Your task to perform on an android device: turn on the 24-hour format for clock Image 0: 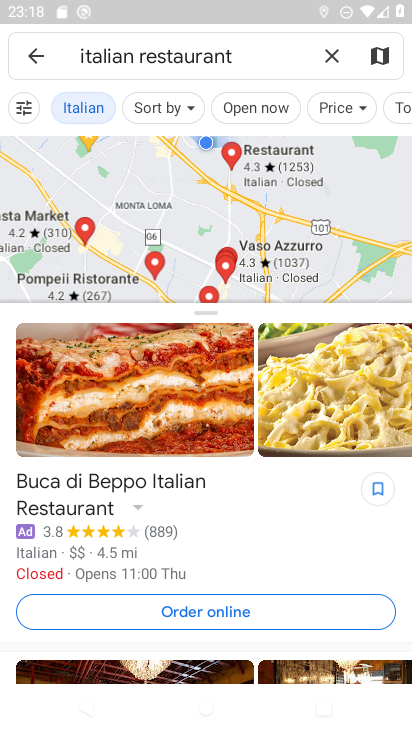
Step 0: press home button
Your task to perform on an android device: turn on the 24-hour format for clock Image 1: 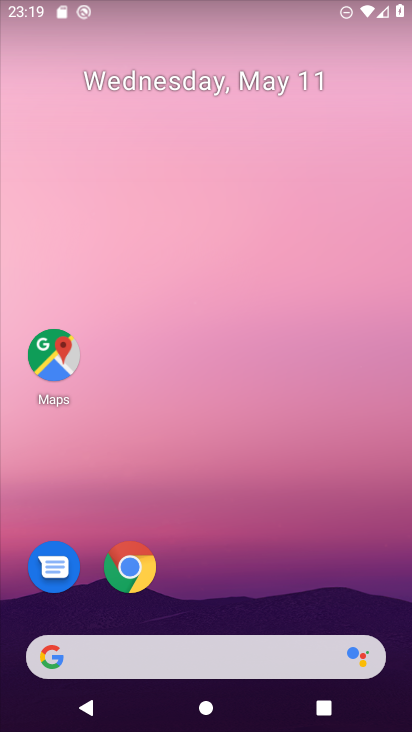
Step 1: drag from (255, 712) to (254, 22)
Your task to perform on an android device: turn on the 24-hour format for clock Image 2: 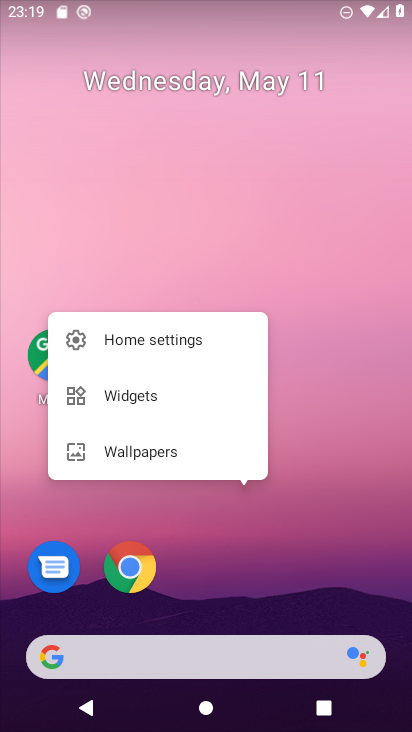
Step 2: click (238, 718)
Your task to perform on an android device: turn on the 24-hour format for clock Image 3: 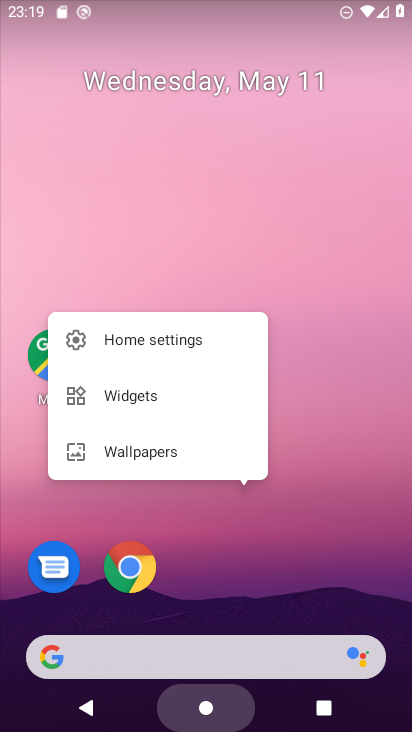
Step 3: drag from (254, 712) to (309, 97)
Your task to perform on an android device: turn on the 24-hour format for clock Image 4: 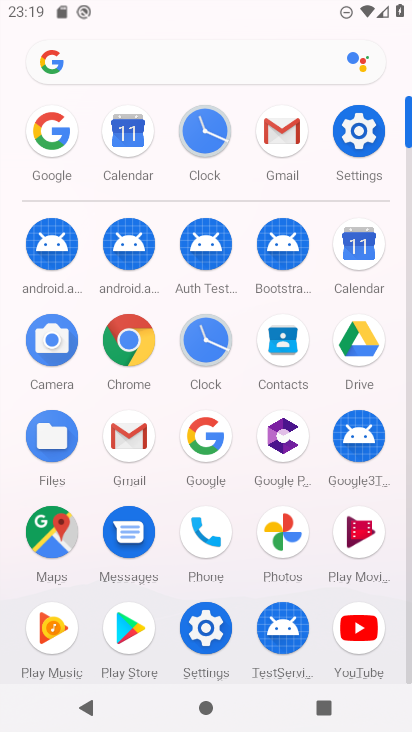
Step 4: click (205, 346)
Your task to perform on an android device: turn on the 24-hour format for clock Image 5: 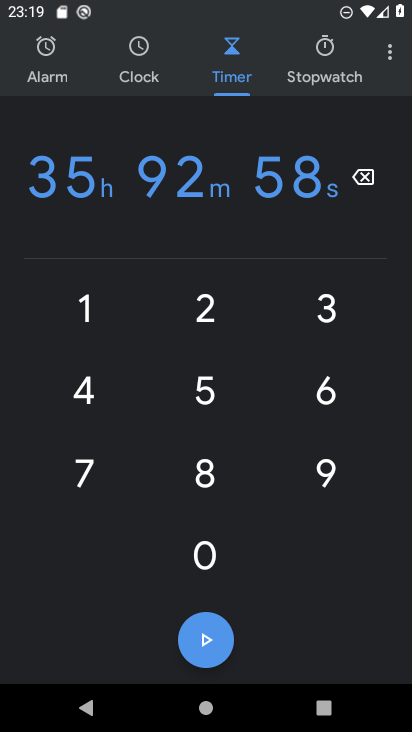
Step 5: click (389, 50)
Your task to perform on an android device: turn on the 24-hour format for clock Image 6: 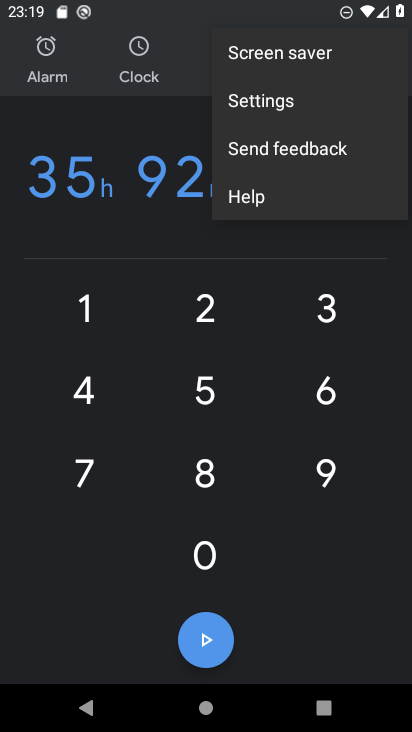
Step 6: click (314, 101)
Your task to perform on an android device: turn on the 24-hour format for clock Image 7: 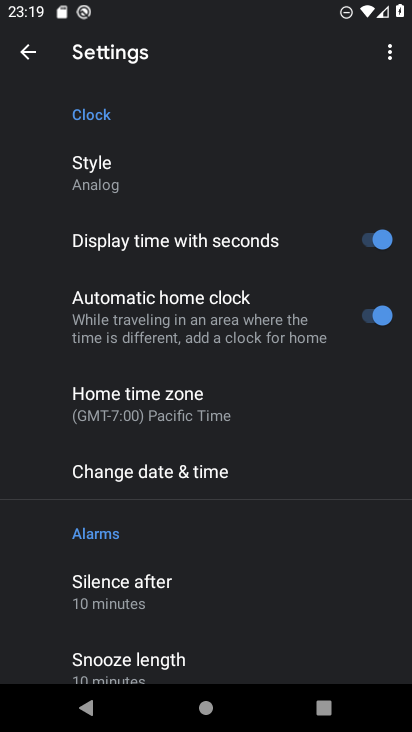
Step 7: click (244, 470)
Your task to perform on an android device: turn on the 24-hour format for clock Image 8: 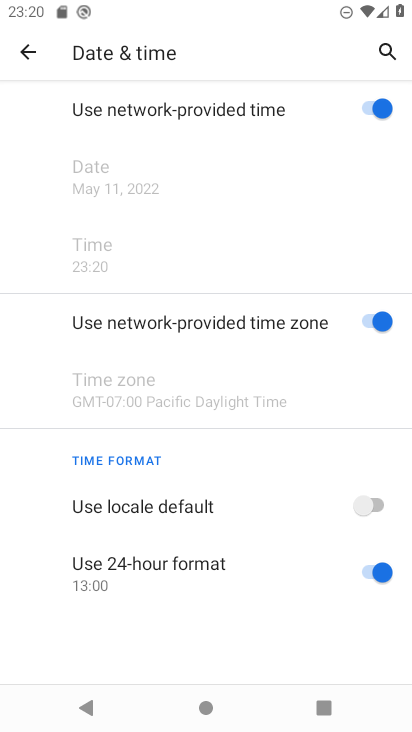
Step 8: task complete